Your task to perform on an android device: Open calendar and show me the second week of next month Image 0: 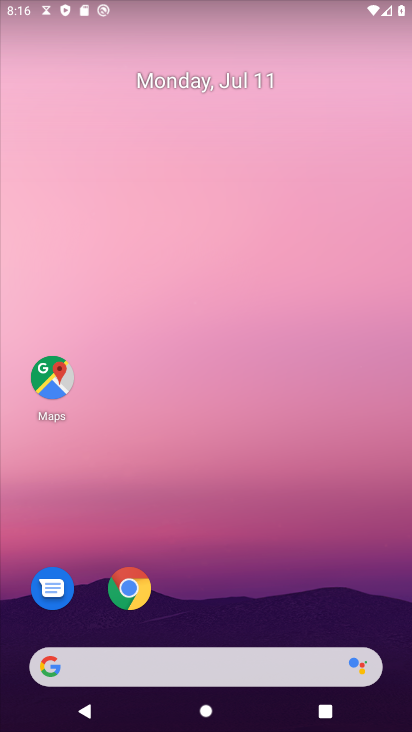
Step 0: press home button
Your task to perform on an android device: Open calendar and show me the second week of next month Image 1: 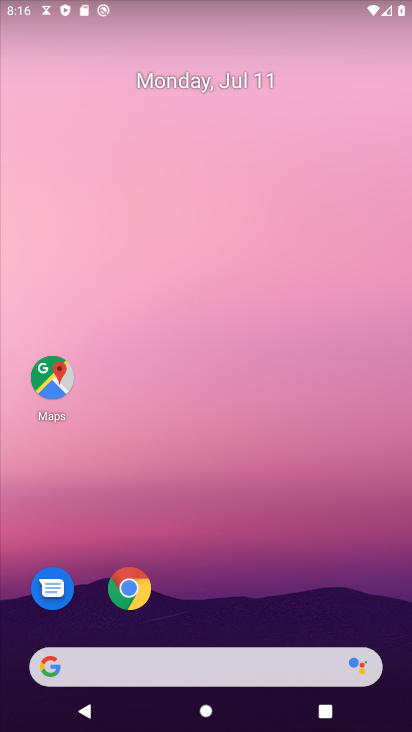
Step 1: drag from (283, 536) to (284, 2)
Your task to perform on an android device: Open calendar and show me the second week of next month Image 2: 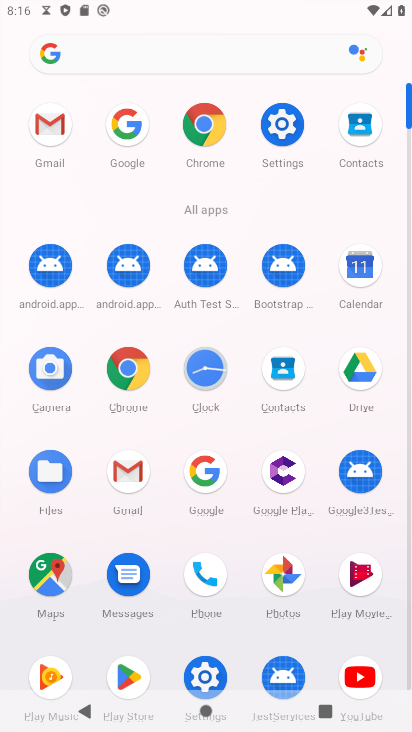
Step 2: click (372, 280)
Your task to perform on an android device: Open calendar and show me the second week of next month Image 3: 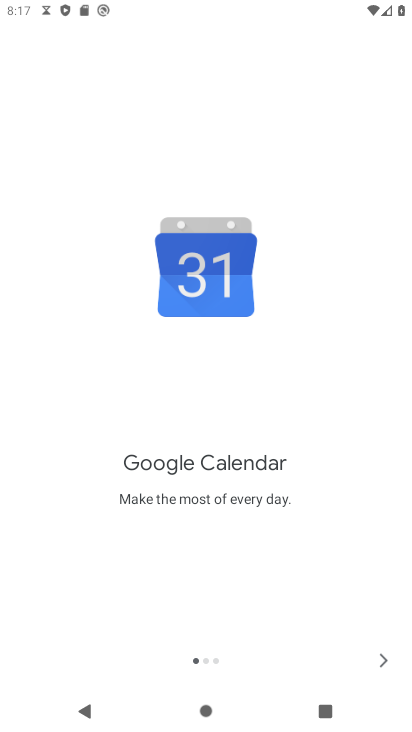
Step 3: click (380, 660)
Your task to perform on an android device: Open calendar and show me the second week of next month Image 4: 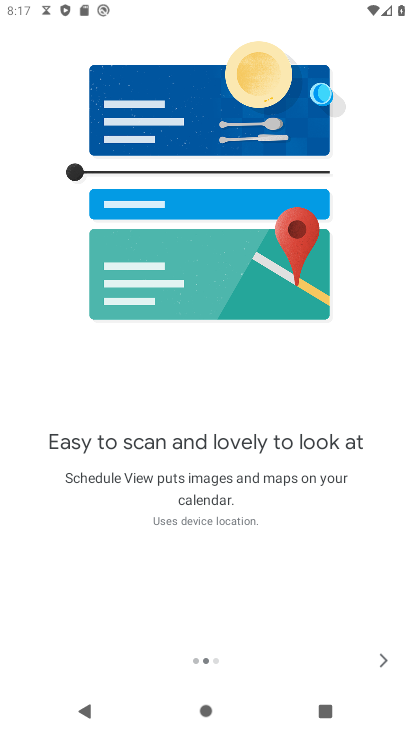
Step 4: click (380, 660)
Your task to perform on an android device: Open calendar and show me the second week of next month Image 5: 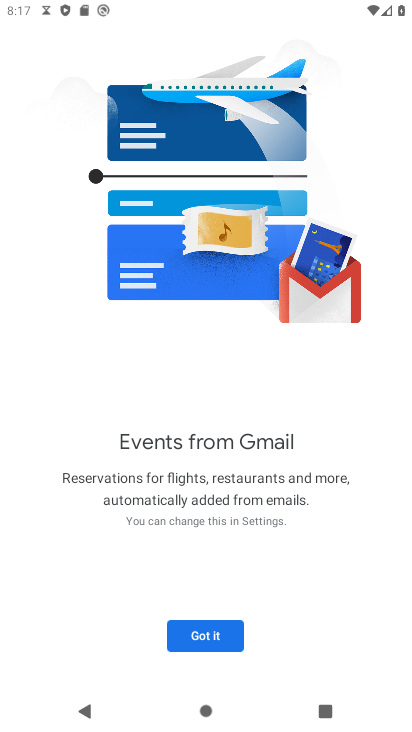
Step 5: click (380, 660)
Your task to perform on an android device: Open calendar and show me the second week of next month Image 6: 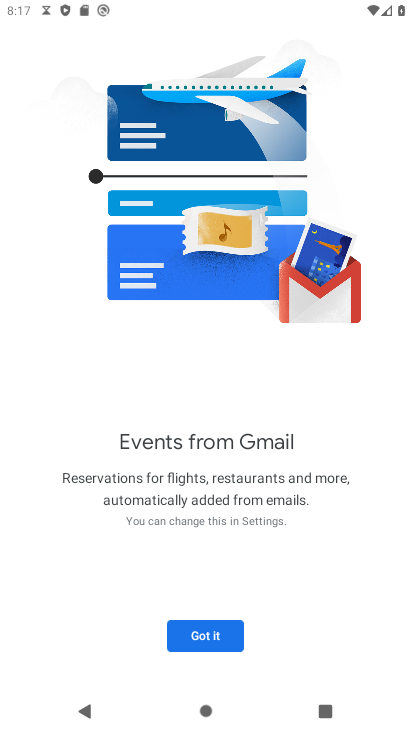
Step 6: click (183, 641)
Your task to perform on an android device: Open calendar and show me the second week of next month Image 7: 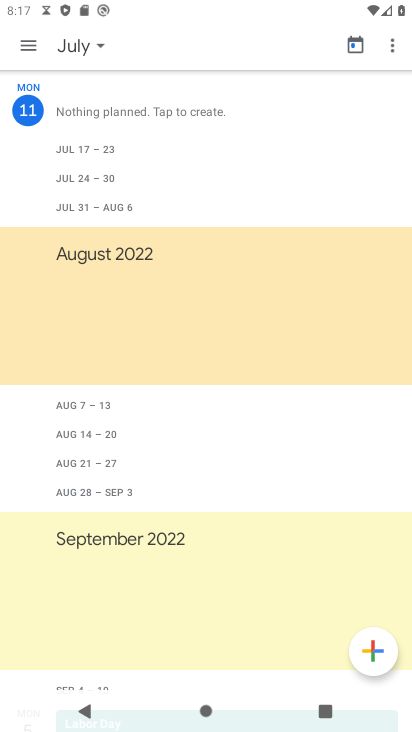
Step 7: click (93, 401)
Your task to perform on an android device: Open calendar and show me the second week of next month Image 8: 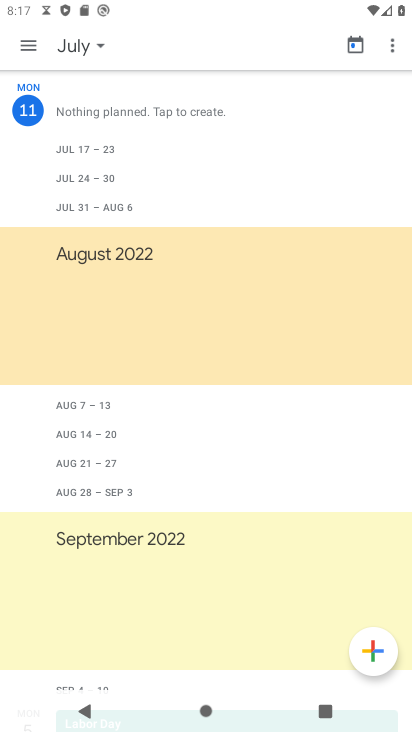
Step 8: click (67, 402)
Your task to perform on an android device: Open calendar and show me the second week of next month Image 9: 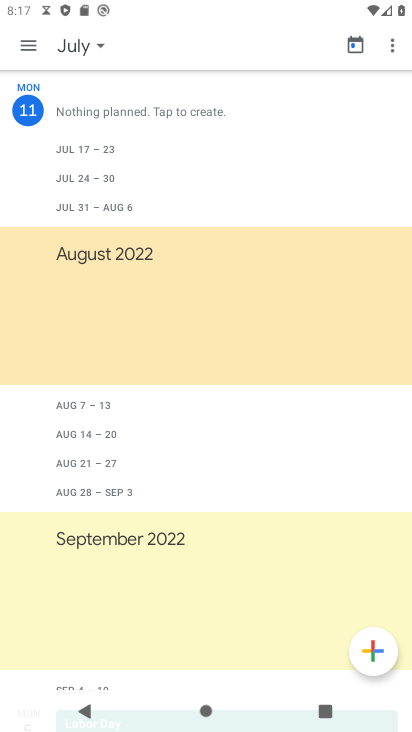
Step 9: click (27, 37)
Your task to perform on an android device: Open calendar and show me the second week of next month Image 10: 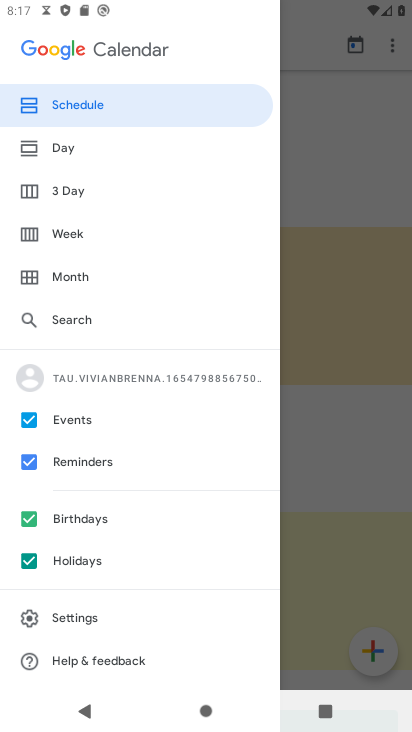
Step 10: click (102, 110)
Your task to perform on an android device: Open calendar and show me the second week of next month Image 11: 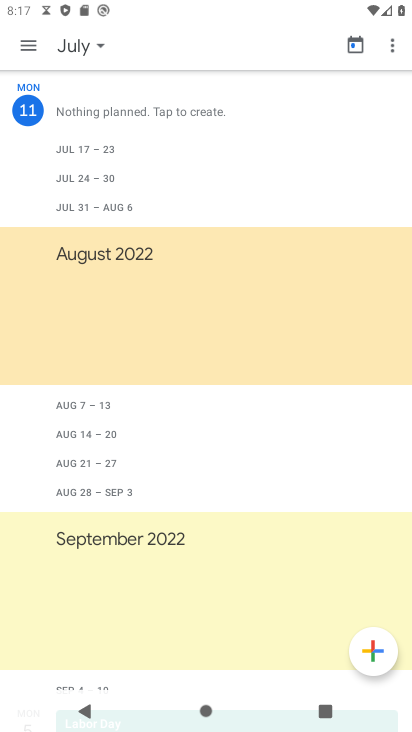
Step 11: click (35, 47)
Your task to perform on an android device: Open calendar and show me the second week of next month Image 12: 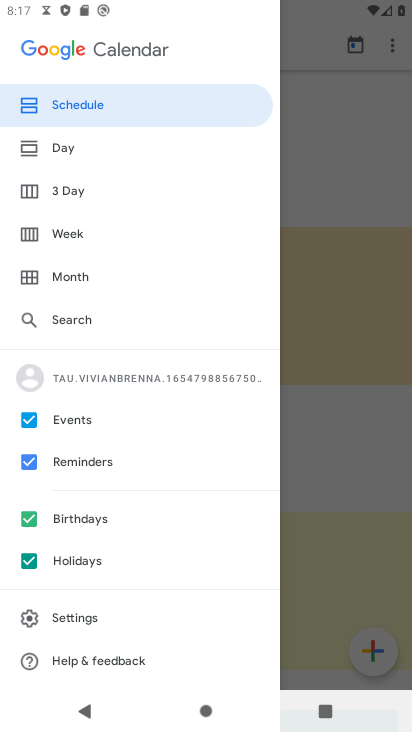
Step 12: click (66, 275)
Your task to perform on an android device: Open calendar and show me the second week of next month Image 13: 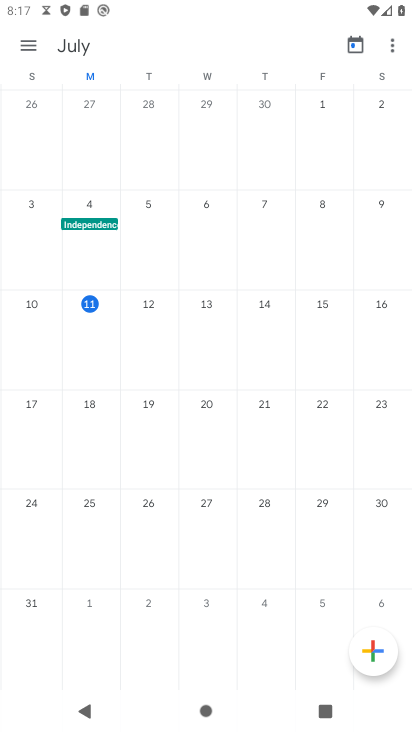
Step 13: drag from (342, 352) to (0, 275)
Your task to perform on an android device: Open calendar and show me the second week of next month Image 14: 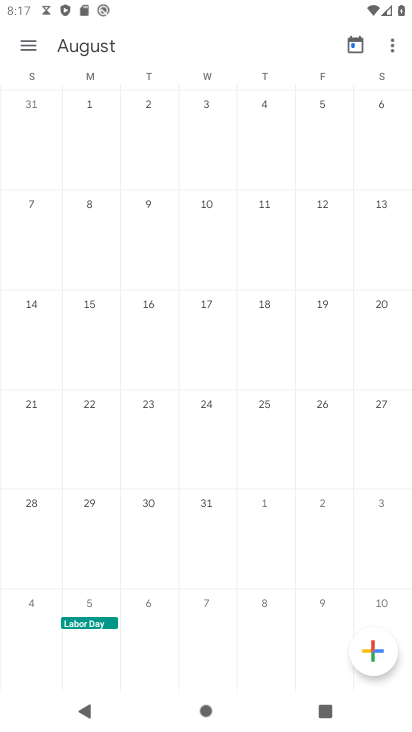
Step 14: click (41, 224)
Your task to perform on an android device: Open calendar and show me the second week of next month Image 15: 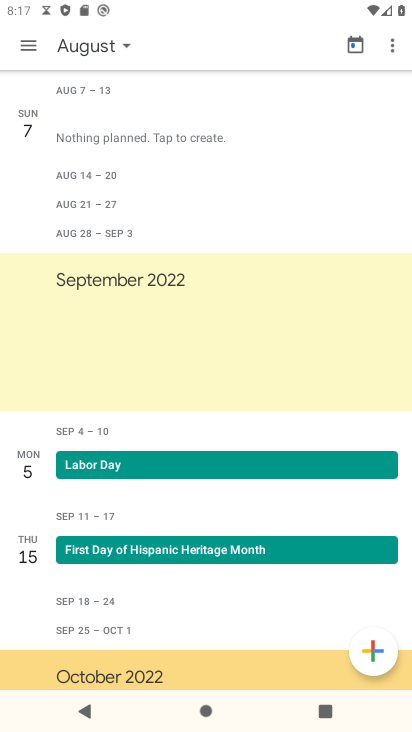
Step 15: task complete